Your task to perform on an android device: change text size in settings app Image 0: 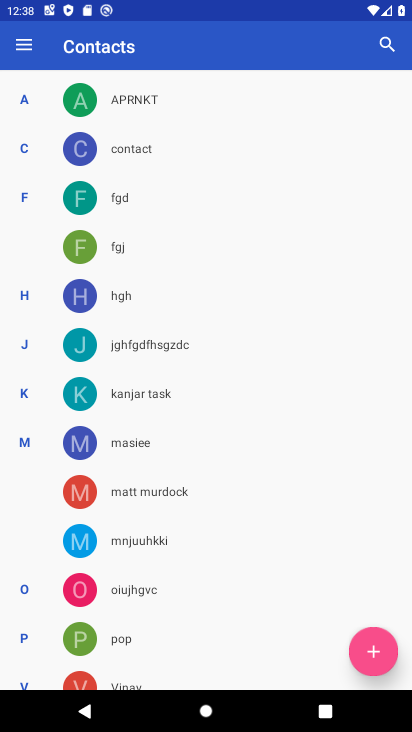
Step 0: press home button
Your task to perform on an android device: change text size in settings app Image 1: 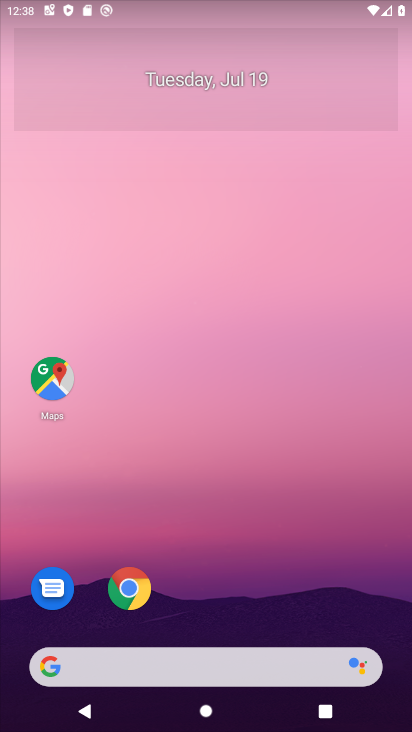
Step 1: drag from (256, 617) to (284, 65)
Your task to perform on an android device: change text size in settings app Image 2: 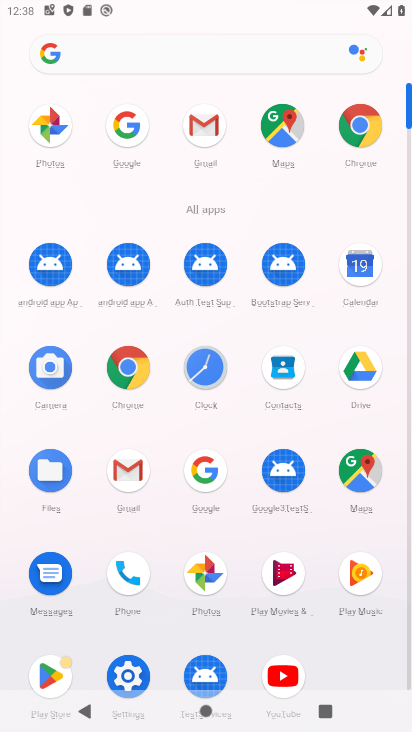
Step 2: click (128, 676)
Your task to perform on an android device: change text size in settings app Image 3: 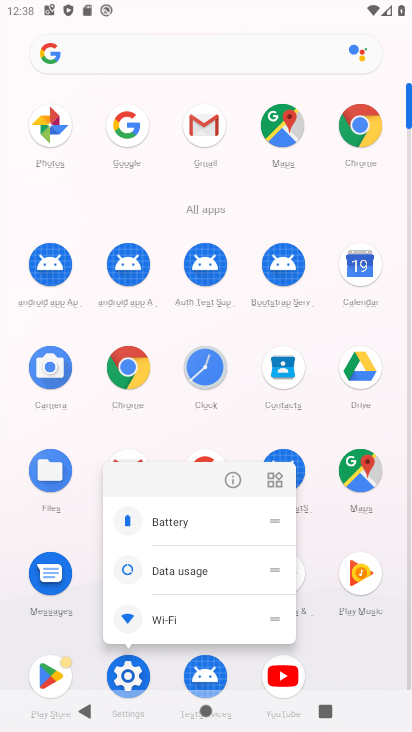
Step 3: click (128, 675)
Your task to perform on an android device: change text size in settings app Image 4: 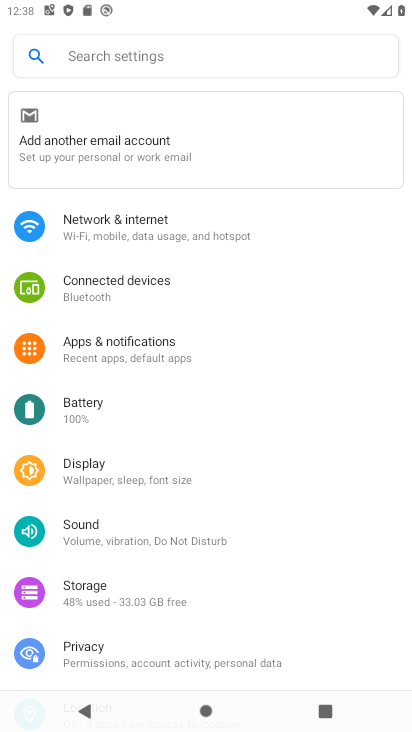
Step 4: click (146, 482)
Your task to perform on an android device: change text size in settings app Image 5: 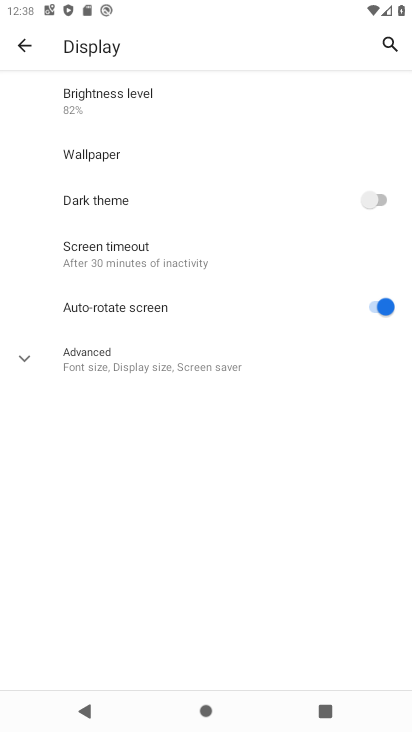
Step 5: click (161, 365)
Your task to perform on an android device: change text size in settings app Image 6: 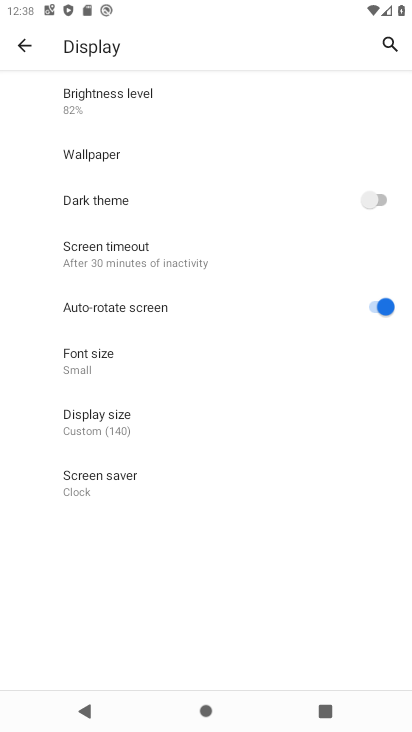
Step 6: click (80, 348)
Your task to perform on an android device: change text size in settings app Image 7: 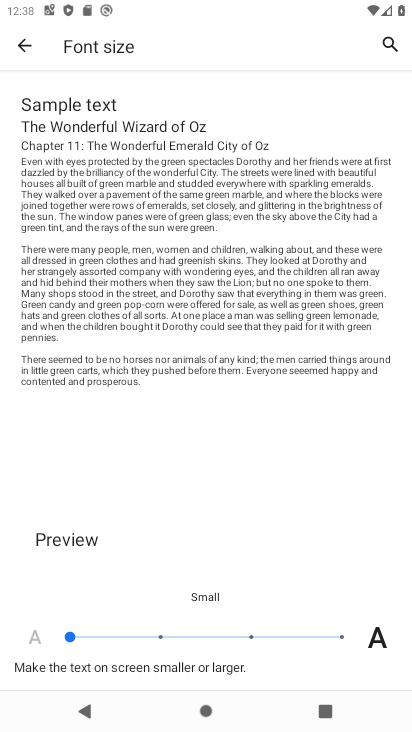
Step 7: click (220, 635)
Your task to perform on an android device: change text size in settings app Image 8: 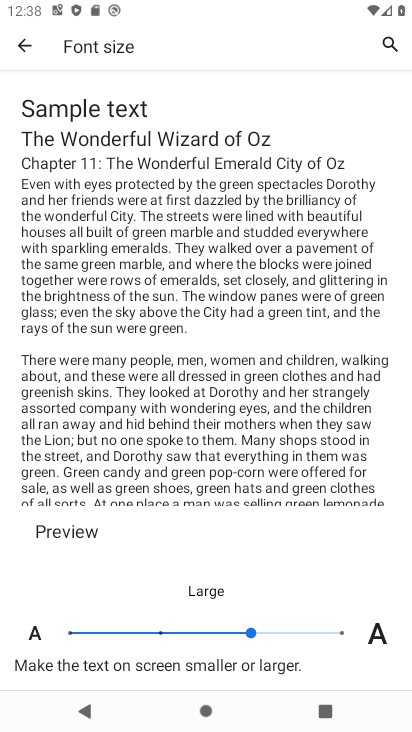
Step 8: task complete